Your task to perform on an android device: Go to privacy settings Image 0: 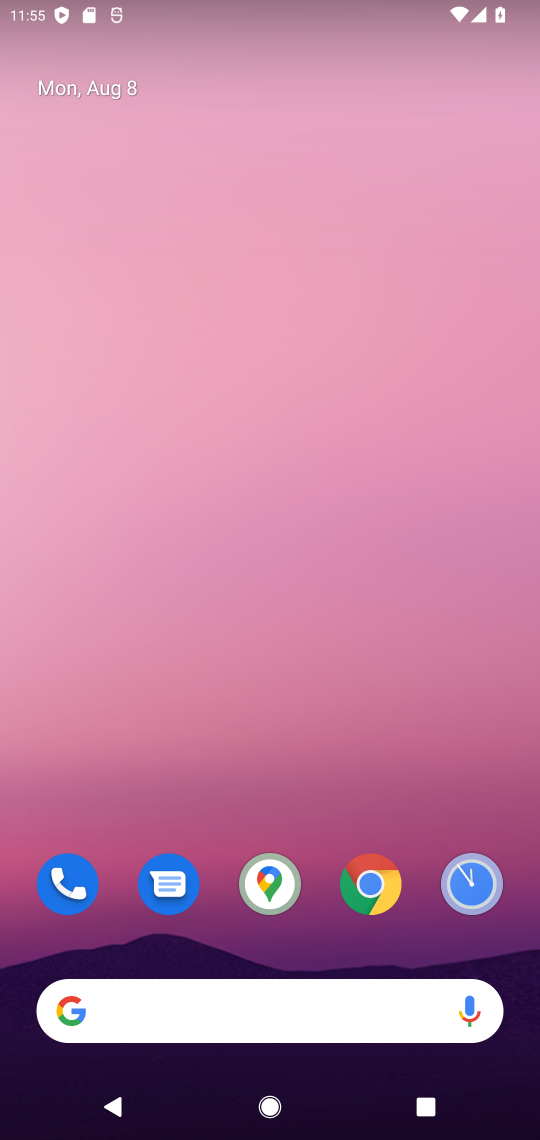
Step 0: click (377, 896)
Your task to perform on an android device: Go to privacy settings Image 1: 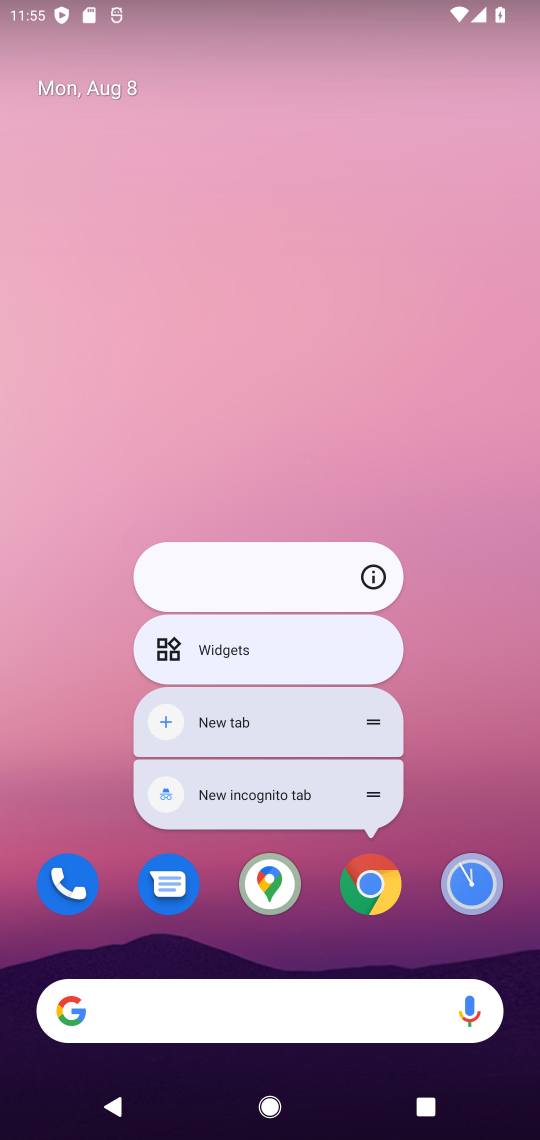
Step 1: click (377, 896)
Your task to perform on an android device: Go to privacy settings Image 2: 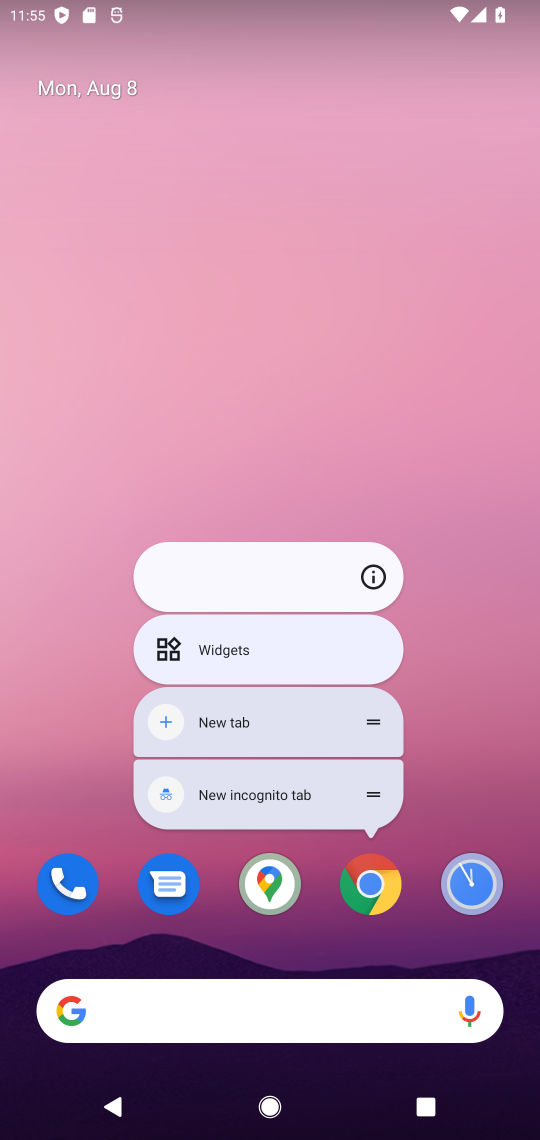
Step 2: click (377, 896)
Your task to perform on an android device: Go to privacy settings Image 3: 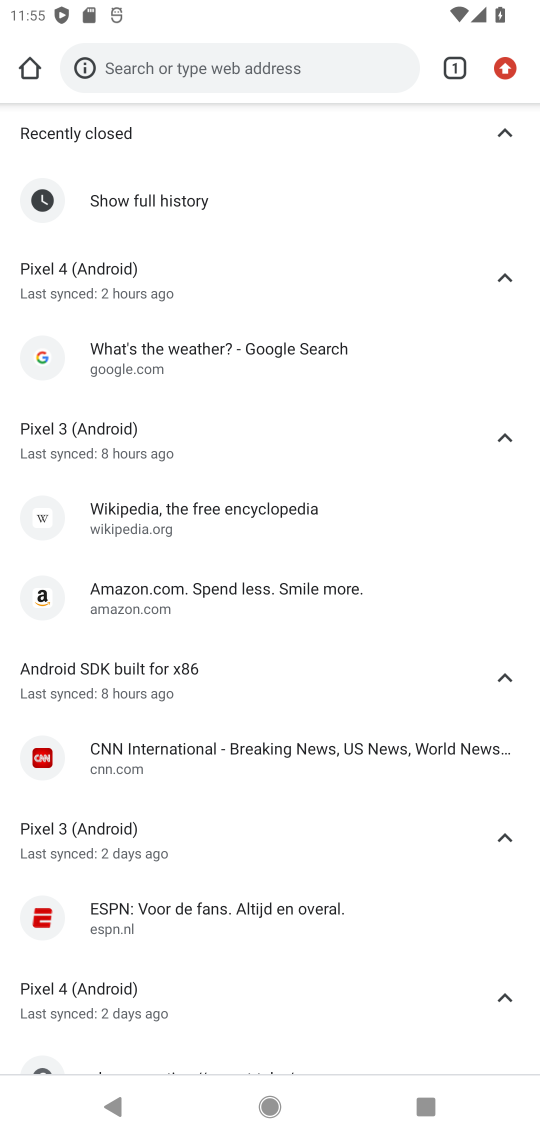
Step 3: click (505, 67)
Your task to perform on an android device: Go to privacy settings Image 4: 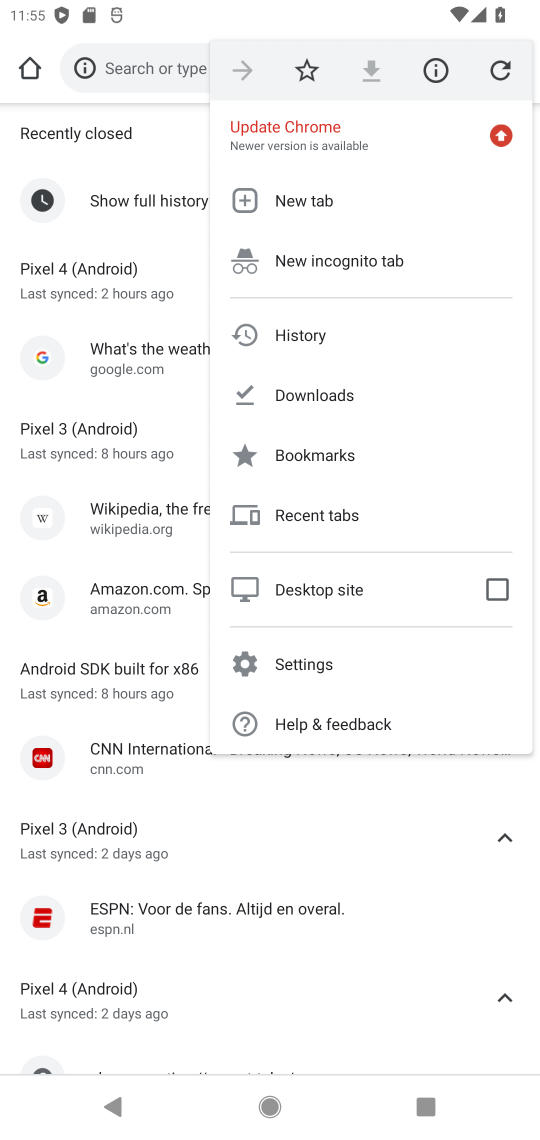
Step 4: click (314, 668)
Your task to perform on an android device: Go to privacy settings Image 5: 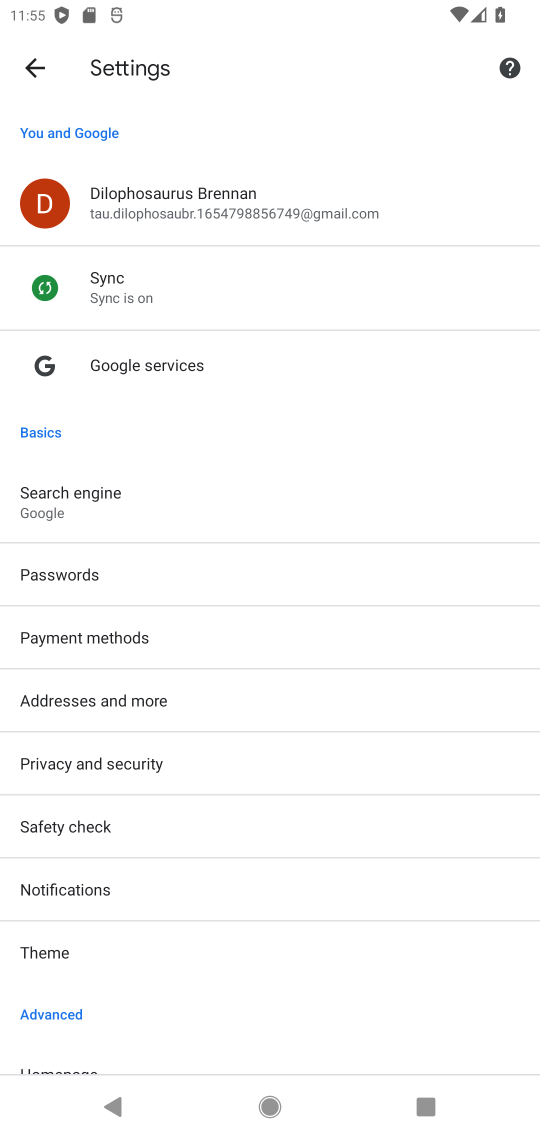
Step 5: click (220, 767)
Your task to perform on an android device: Go to privacy settings Image 6: 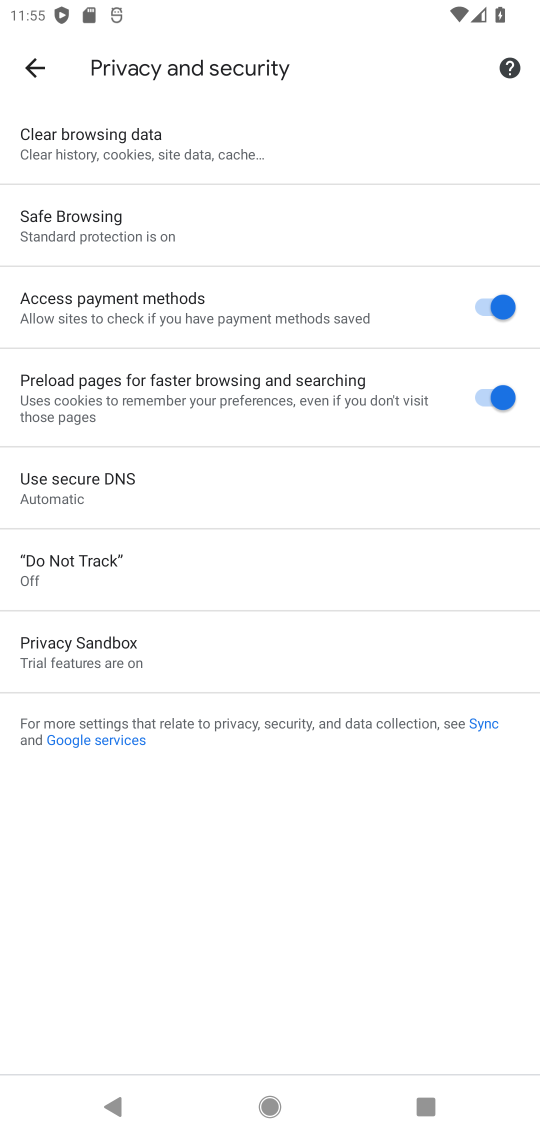
Step 6: task complete